Your task to perform on an android device: delete browsing data in the chrome app Image 0: 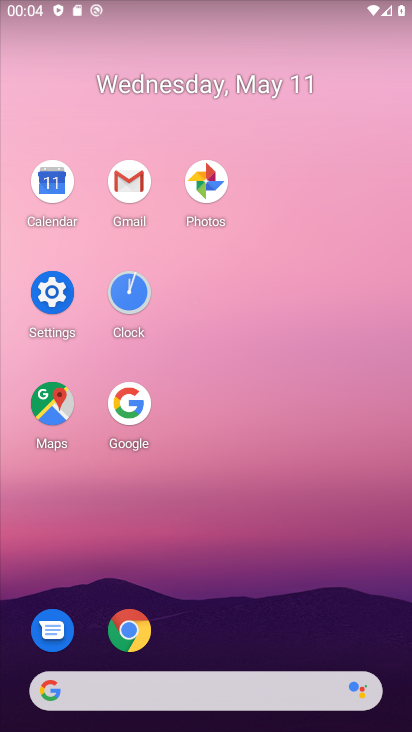
Step 0: click (142, 639)
Your task to perform on an android device: delete browsing data in the chrome app Image 1: 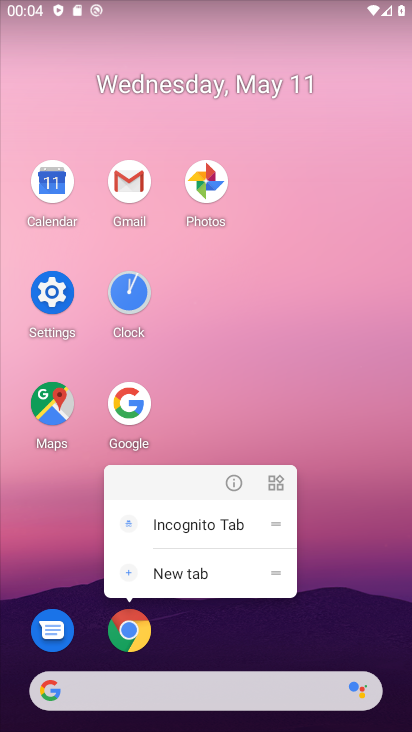
Step 1: click (140, 627)
Your task to perform on an android device: delete browsing data in the chrome app Image 2: 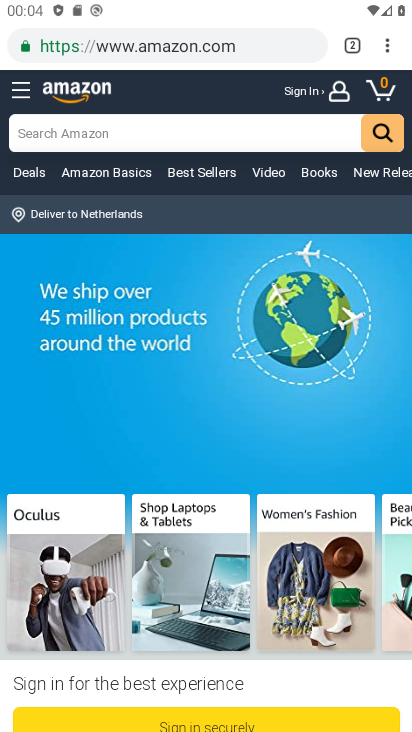
Step 2: click (379, 47)
Your task to perform on an android device: delete browsing data in the chrome app Image 3: 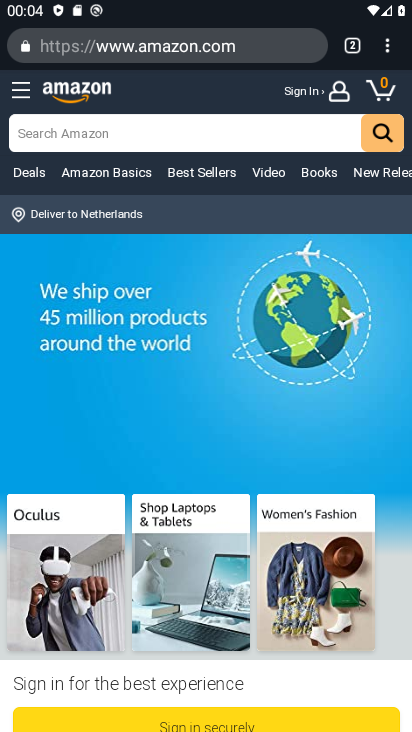
Step 3: click (382, 41)
Your task to perform on an android device: delete browsing data in the chrome app Image 4: 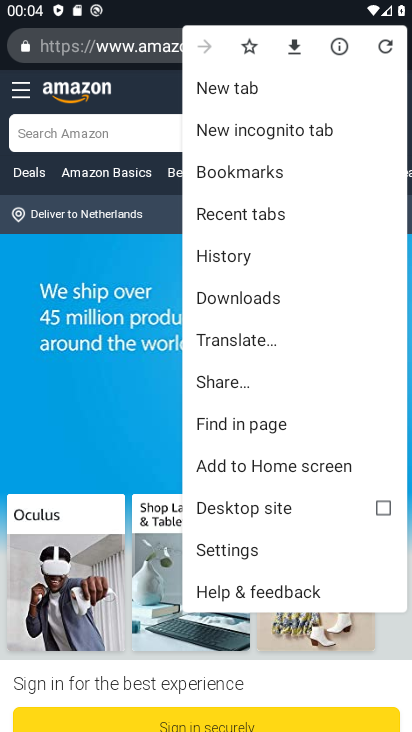
Step 4: drag from (259, 533) to (317, 234)
Your task to perform on an android device: delete browsing data in the chrome app Image 5: 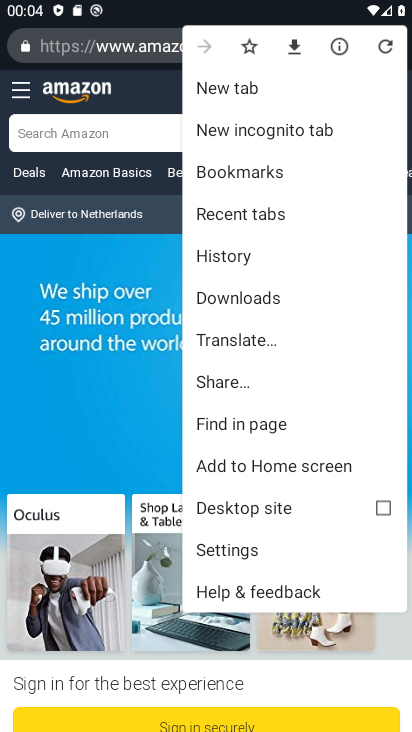
Step 5: click (283, 541)
Your task to perform on an android device: delete browsing data in the chrome app Image 6: 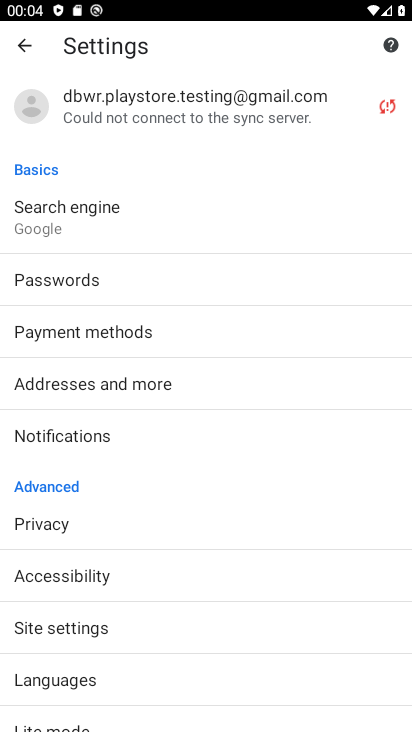
Step 6: click (51, 533)
Your task to perform on an android device: delete browsing data in the chrome app Image 7: 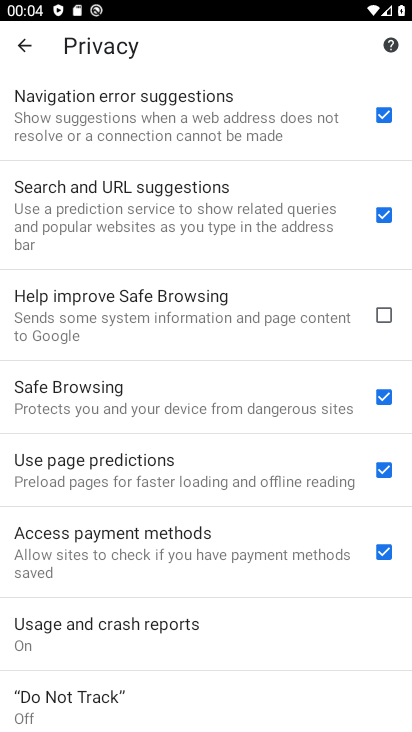
Step 7: drag from (294, 684) to (308, 248)
Your task to perform on an android device: delete browsing data in the chrome app Image 8: 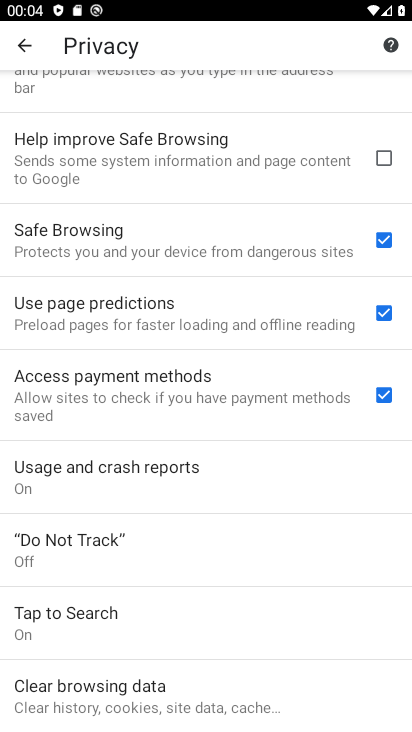
Step 8: click (149, 701)
Your task to perform on an android device: delete browsing data in the chrome app Image 9: 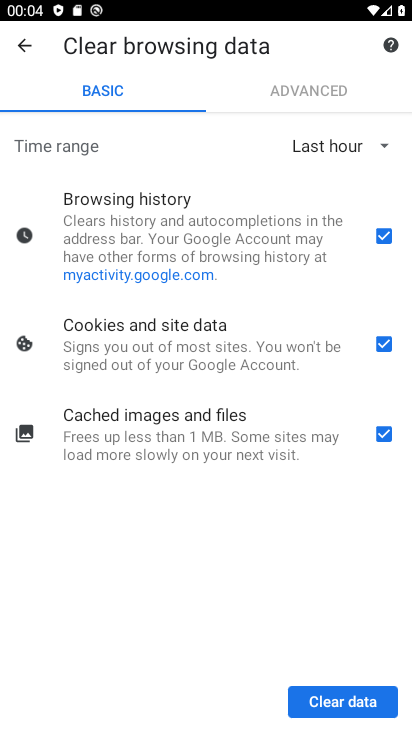
Step 9: click (382, 699)
Your task to perform on an android device: delete browsing data in the chrome app Image 10: 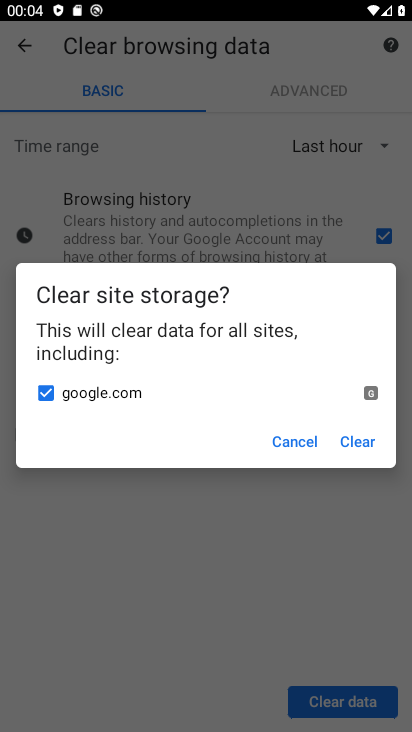
Step 10: click (357, 444)
Your task to perform on an android device: delete browsing data in the chrome app Image 11: 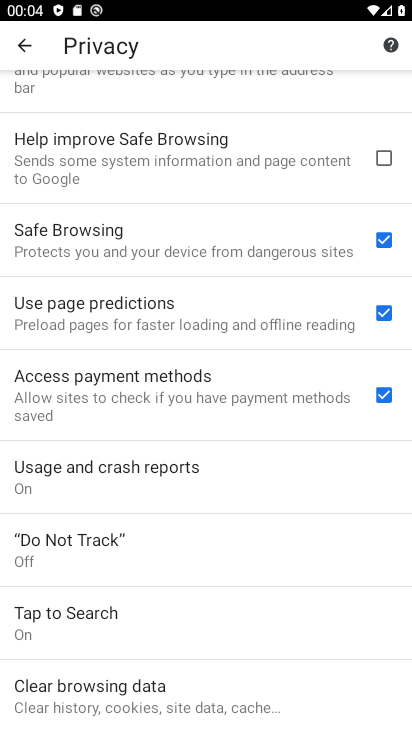
Step 11: task complete